Your task to perform on an android device: check battery use Image 0: 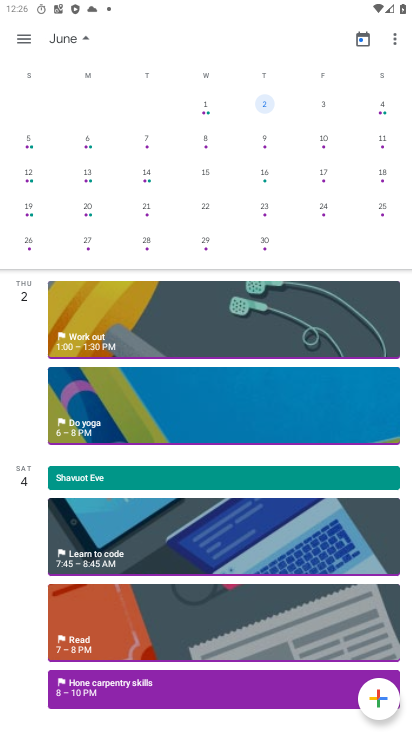
Step 0: press home button
Your task to perform on an android device: check battery use Image 1: 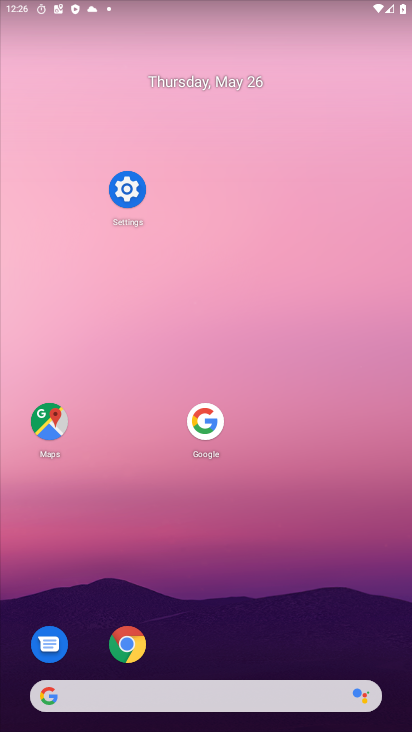
Step 1: click (131, 186)
Your task to perform on an android device: check battery use Image 2: 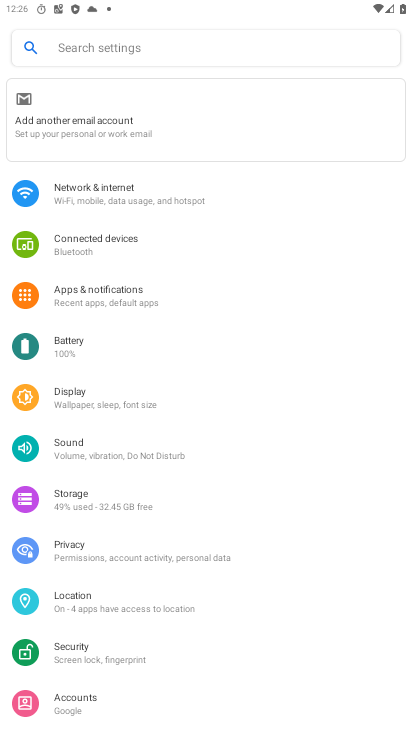
Step 2: click (106, 187)
Your task to perform on an android device: check battery use Image 3: 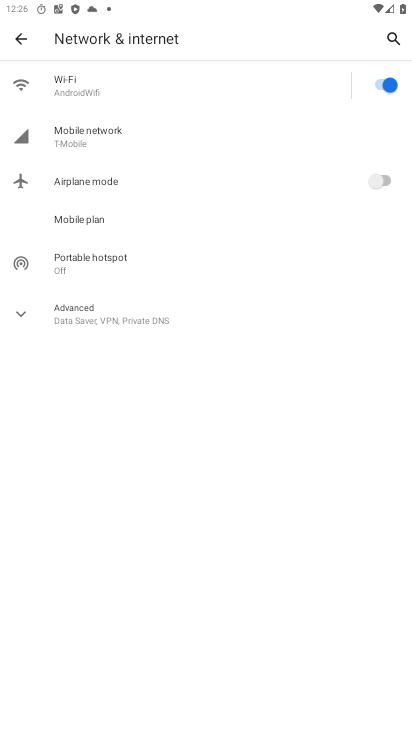
Step 3: press back button
Your task to perform on an android device: check battery use Image 4: 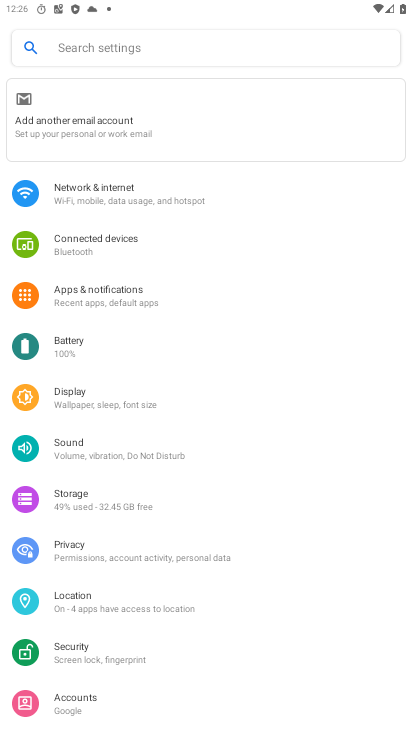
Step 4: click (86, 348)
Your task to perform on an android device: check battery use Image 5: 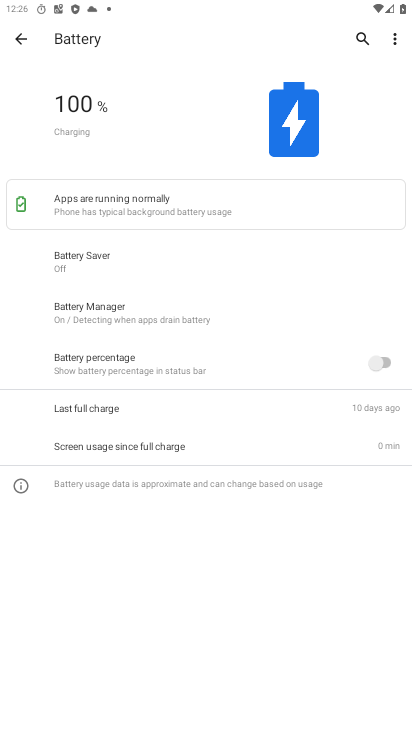
Step 5: click (390, 40)
Your task to perform on an android device: check battery use Image 6: 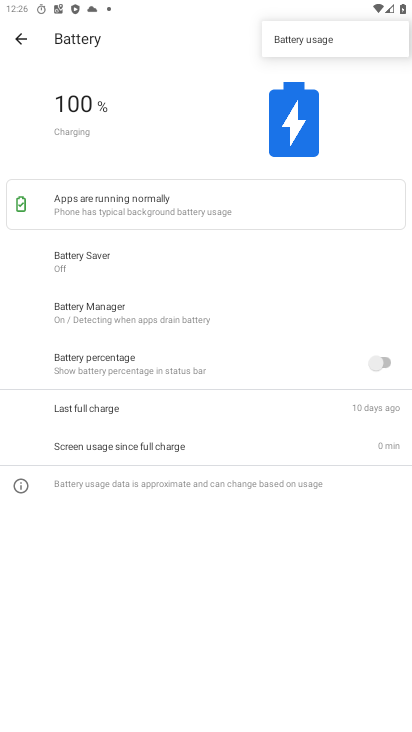
Step 6: click (339, 35)
Your task to perform on an android device: check battery use Image 7: 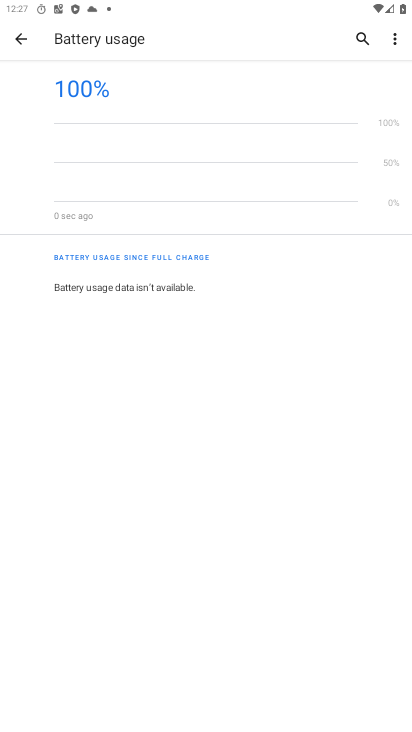
Step 7: task complete